Your task to perform on an android device: open a bookmark in the chrome app Image 0: 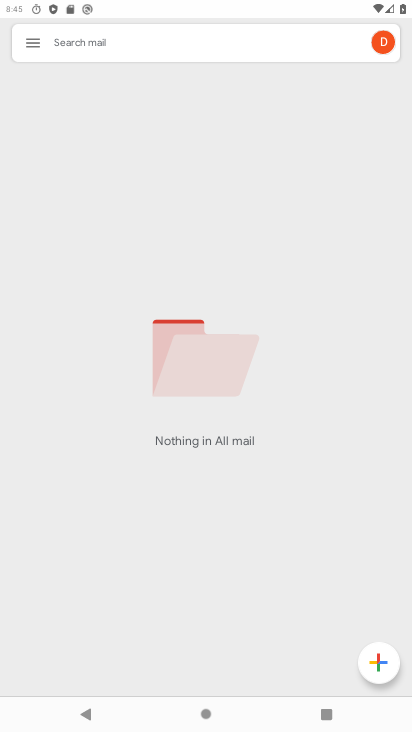
Step 0: press home button
Your task to perform on an android device: open a bookmark in the chrome app Image 1: 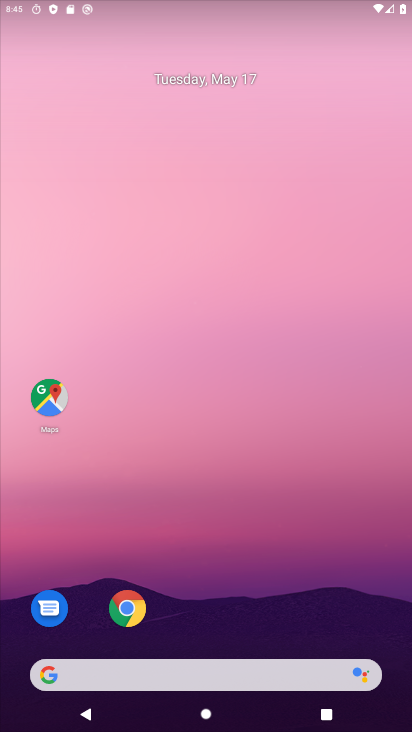
Step 1: drag from (379, 603) to (302, 157)
Your task to perform on an android device: open a bookmark in the chrome app Image 2: 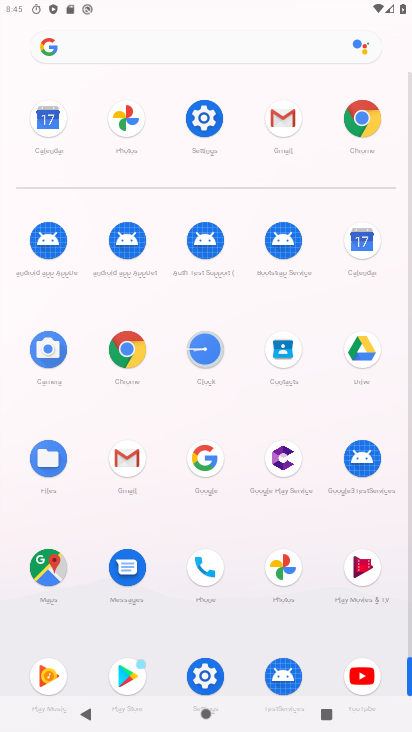
Step 2: click (115, 356)
Your task to perform on an android device: open a bookmark in the chrome app Image 3: 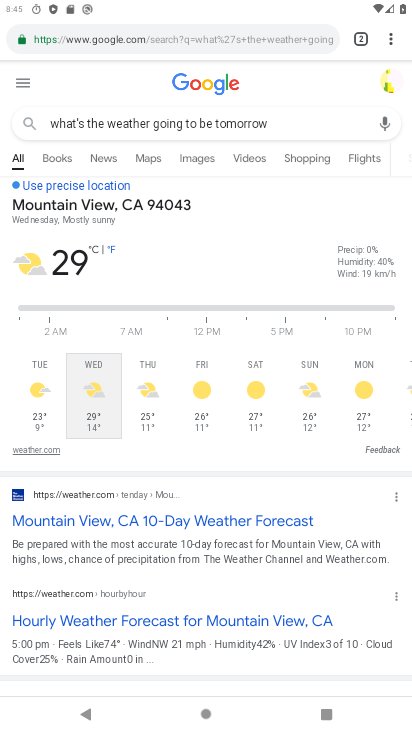
Step 3: task complete